Your task to perform on an android device: Show me popular games on the Play Store Image 0: 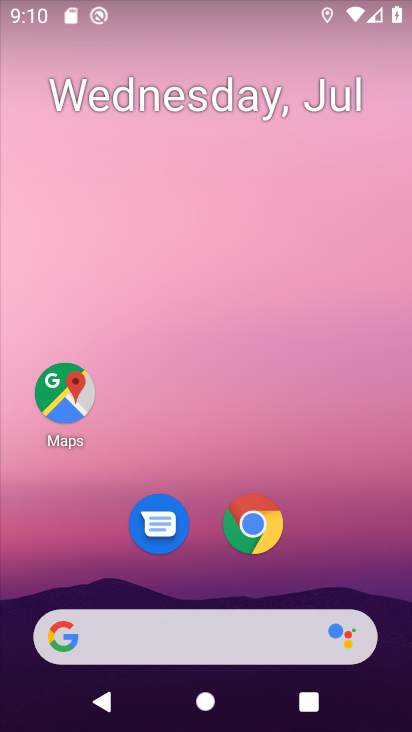
Step 0: drag from (332, 563) to (328, 55)
Your task to perform on an android device: Show me popular games on the Play Store Image 1: 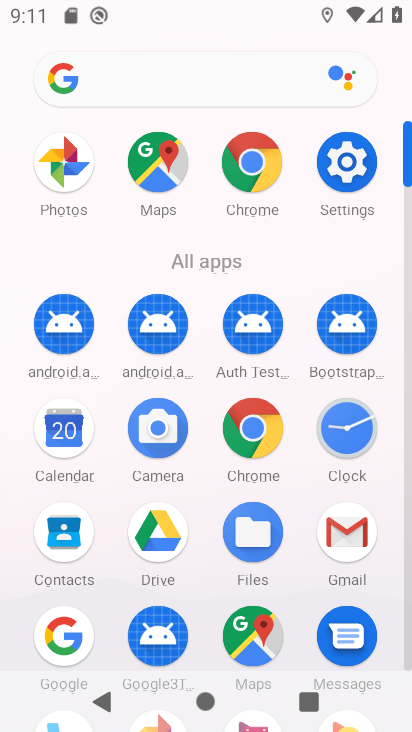
Step 1: drag from (215, 495) to (244, 119)
Your task to perform on an android device: Show me popular games on the Play Store Image 2: 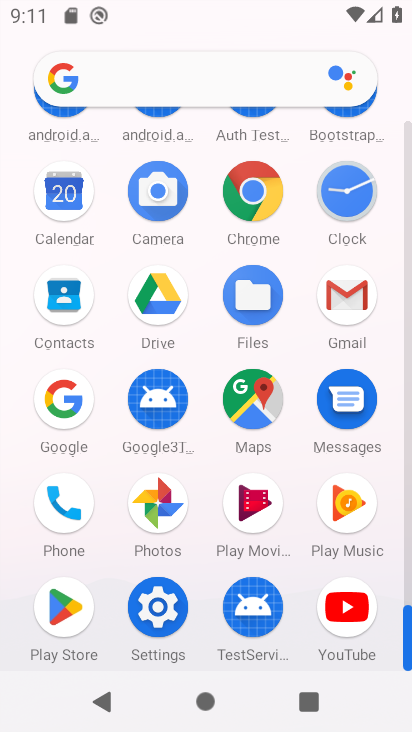
Step 2: click (55, 591)
Your task to perform on an android device: Show me popular games on the Play Store Image 3: 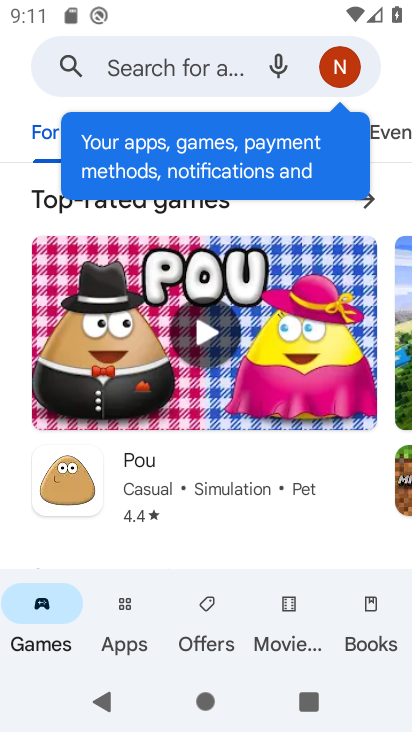
Step 3: drag from (276, 533) to (299, 161)
Your task to perform on an android device: Show me popular games on the Play Store Image 4: 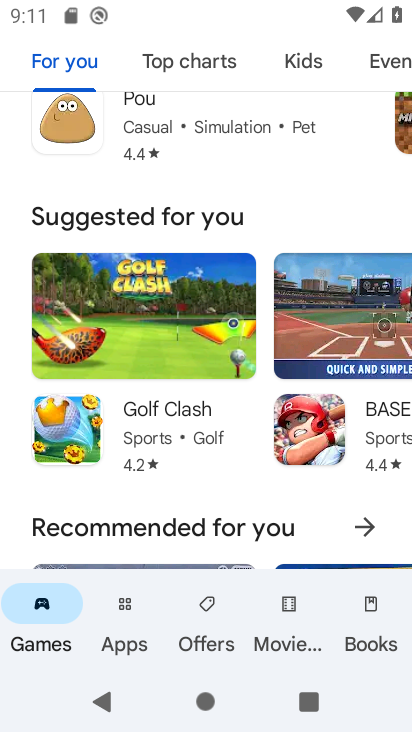
Step 4: drag from (218, 393) to (252, 112)
Your task to perform on an android device: Show me popular games on the Play Store Image 5: 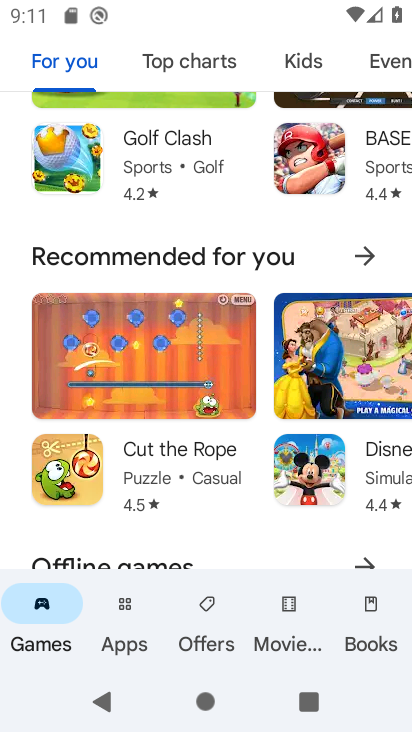
Step 5: drag from (209, 372) to (240, 121)
Your task to perform on an android device: Show me popular games on the Play Store Image 6: 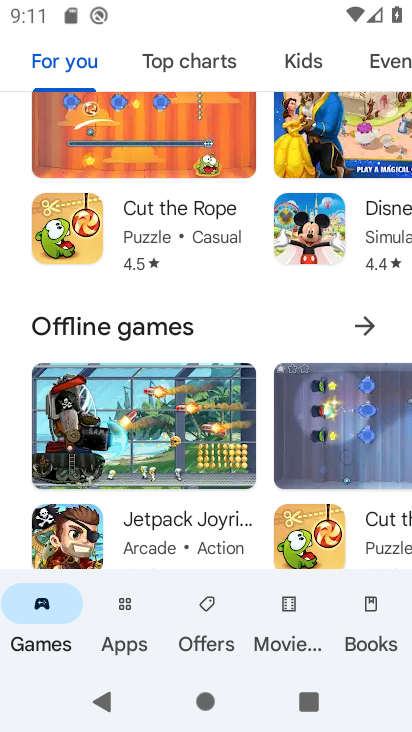
Step 6: drag from (209, 363) to (228, 69)
Your task to perform on an android device: Show me popular games on the Play Store Image 7: 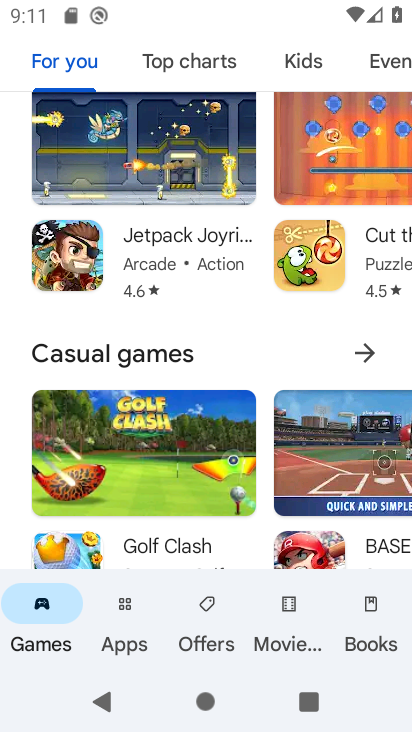
Step 7: drag from (173, 365) to (203, 181)
Your task to perform on an android device: Show me popular games on the Play Store Image 8: 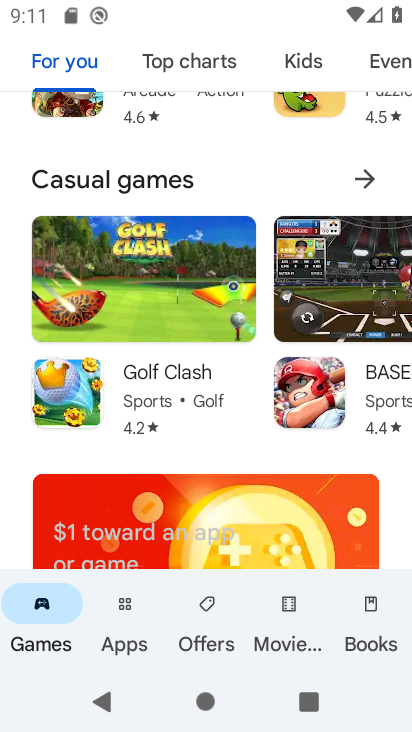
Step 8: drag from (209, 169) to (274, 547)
Your task to perform on an android device: Show me popular games on the Play Store Image 9: 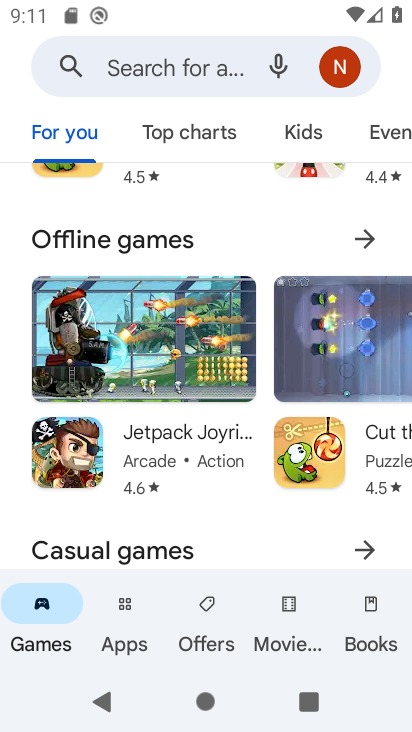
Step 9: drag from (264, 219) to (283, 583)
Your task to perform on an android device: Show me popular games on the Play Store Image 10: 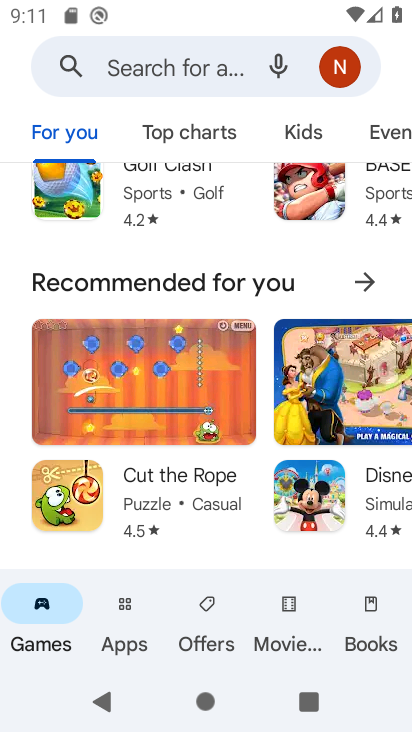
Step 10: drag from (259, 209) to (289, 544)
Your task to perform on an android device: Show me popular games on the Play Store Image 11: 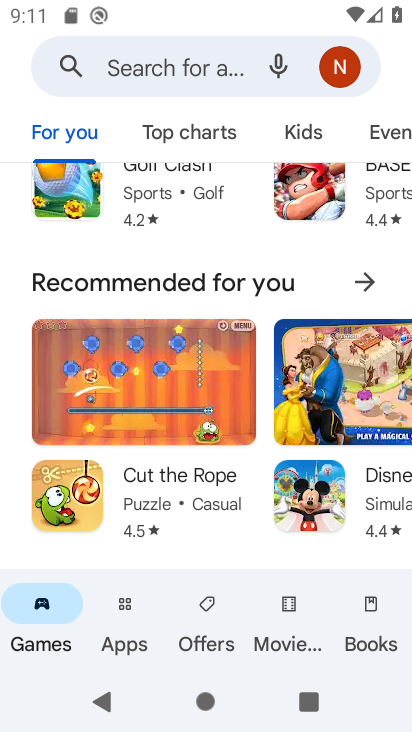
Step 11: drag from (190, 234) to (228, 493)
Your task to perform on an android device: Show me popular games on the Play Store Image 12: 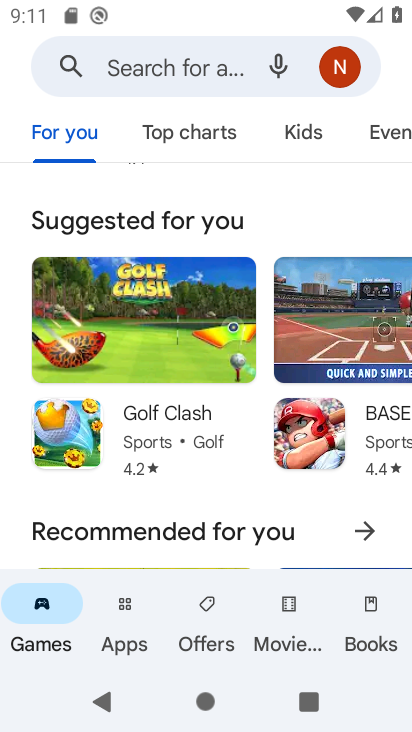
Step 12: drag from (222, 213) to (203, 641)
Your task to perform on an android device: Show me popular games on the Play Store Image 13: 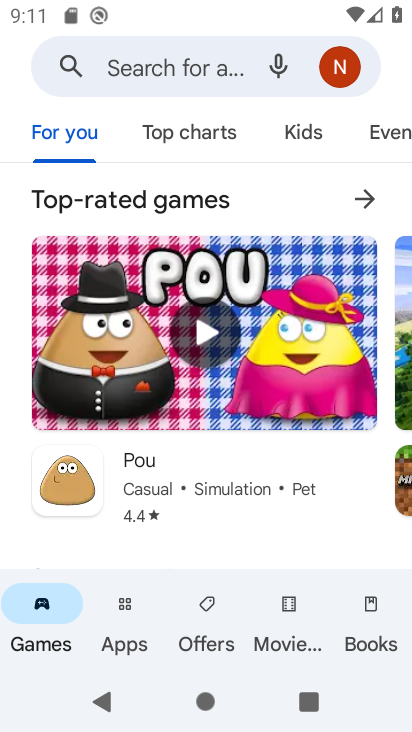
Step 13: click (364, 197)
Your task to perform on an android device: Show me popular games on the Play Store Image 14: 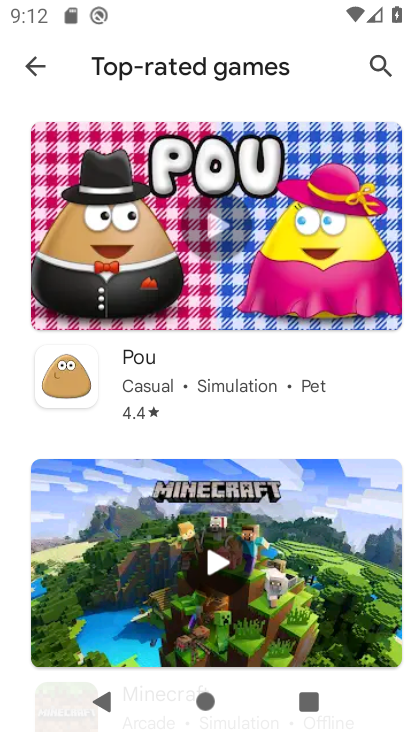
Step 14: click (223, 562)
Your task to perform on an android device: Show me popular games on the Play Store Image 15: 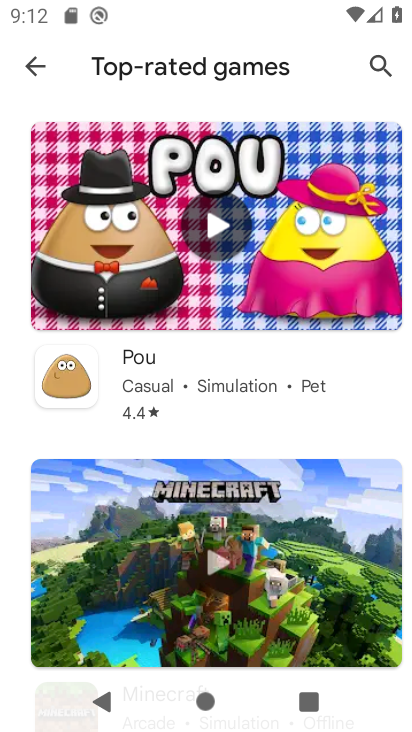
Step 15: task complete